Your task to perform on an android device: Open Maps and search for coffee Image 0: 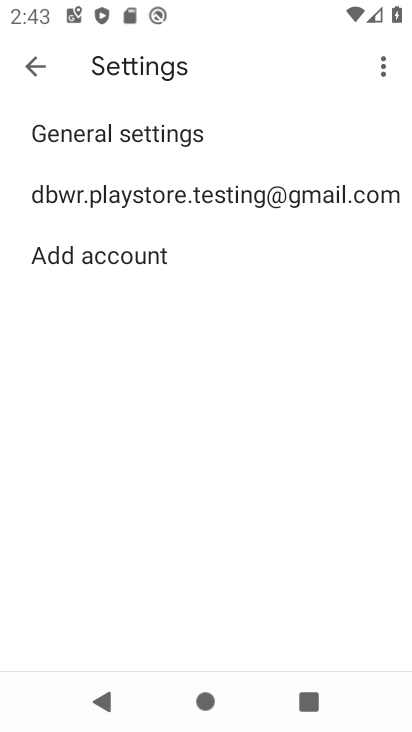
Step 0: press home button
Your task to perform on an android device: Open Maps and search for coffee Image 1: 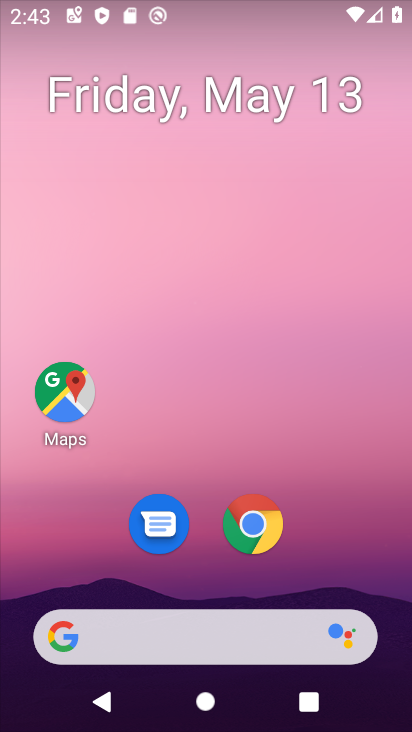
Step 1: click (65, 394)
Your task to perform on an android device: Open Maps and search for coffee Image 2: 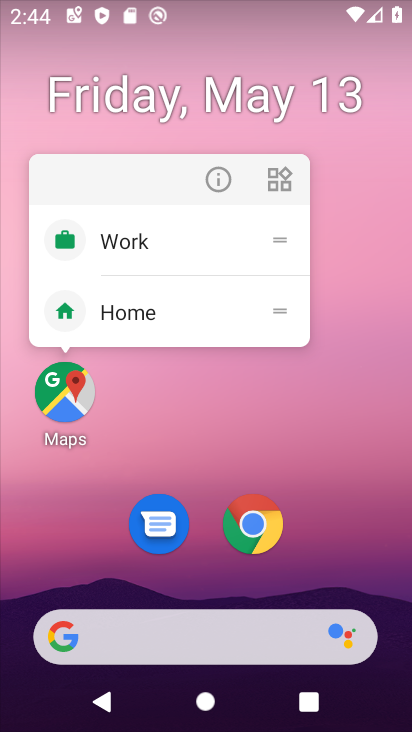
Step 2: click (65, 396)
Your task to perform on an android device: Open Maps and search for coffee Image 3: 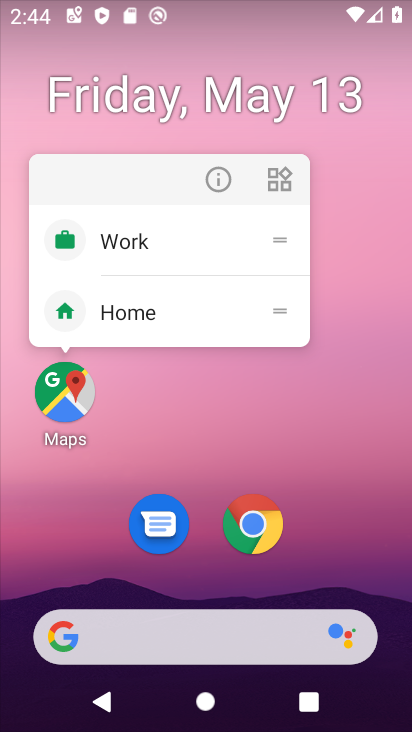
Step 3: click (127, 416)
Your task to perform on an android device: Open Maps and search for coffee Image 4: 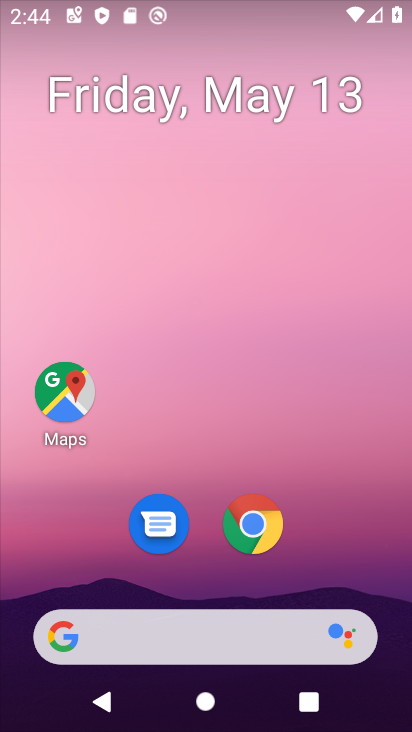
Step 4: click (69, 390)
Your task to perform on an android device: Open Maps and search for coffee Image 5: 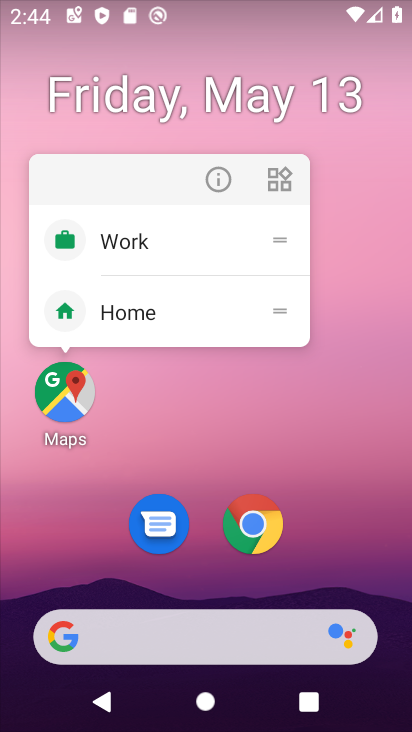
Step 5: click (142, 415)
Your task to perform on an android device: Open Maps and search for coffee Image 6: 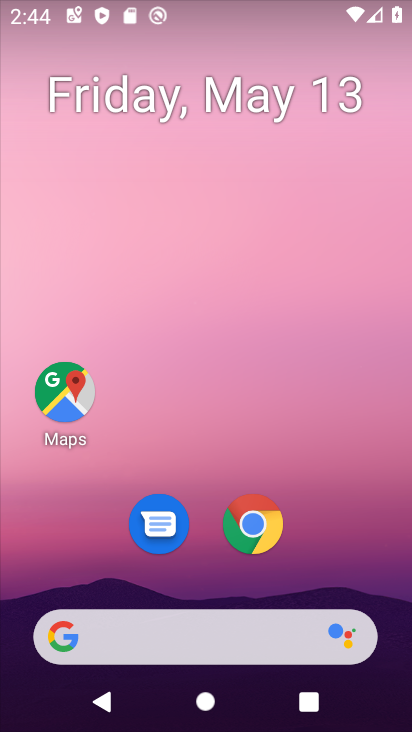
Step 6: click (63, 390)
Your task to perform on an android device: Open Maps and search for coffee Image 7: 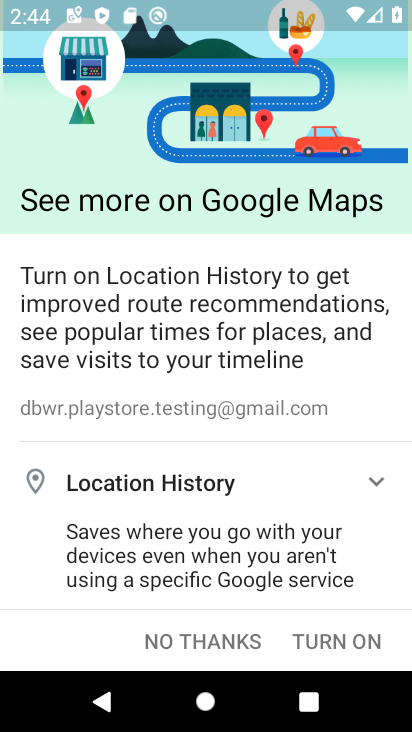
Step 7: click (219, 648)
Your task to perform on an android device: Open Maps and search for coffee Image 8: 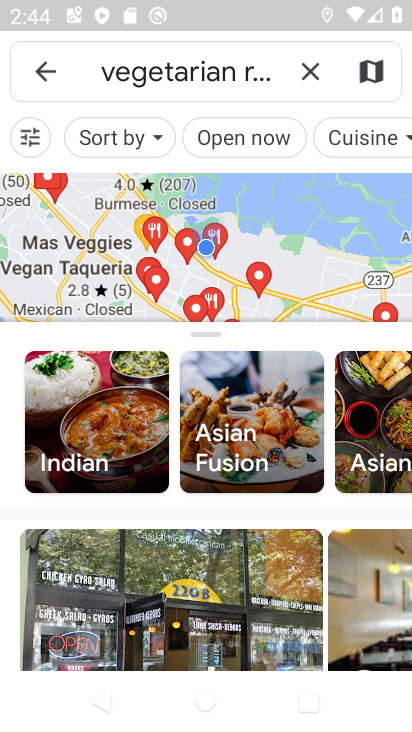
Step 8: click (311, 73)
Your task to perform on an android device: Open Maps and search for coffee Image 9: 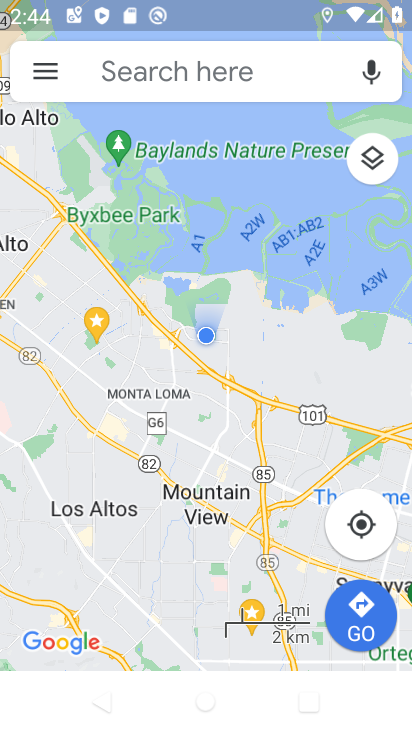
Step 9: click (226, 72)
Your task to perform on an android device: Open Maps and search for coffee Image 10: 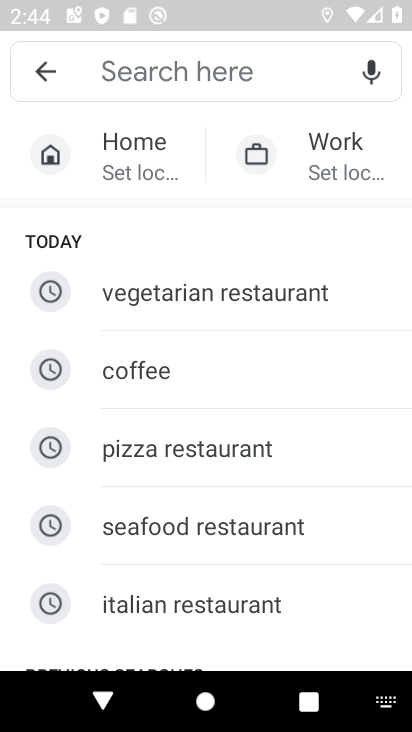
Step 10: click (145, 369)
Your task to perform on an android device: Open Maps and search for coffee Image 11: 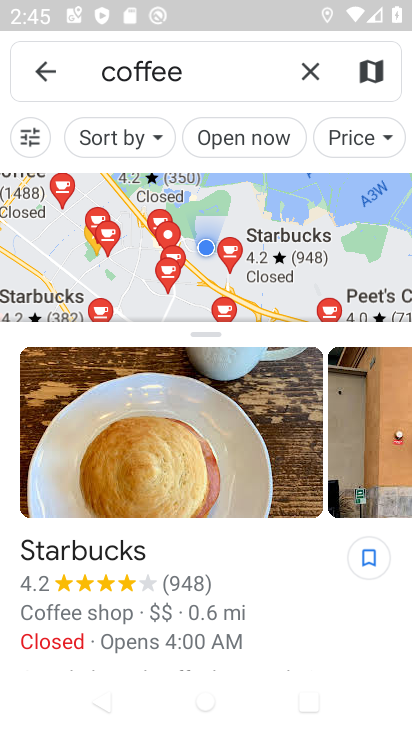
Step 11: task complete